Your task to perform on an android device: Open the Play Movies app and select the watchlist tab. Image 0: 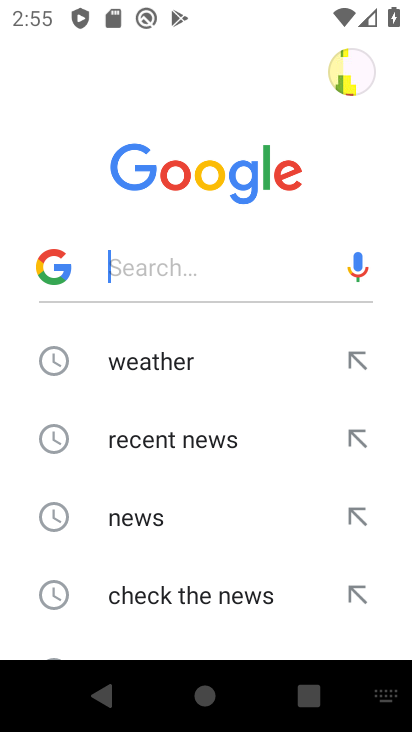
Step 0: press back button
Your task to perform on an android device: Open the Play Movies app and select the watchlist tab. Image 1: 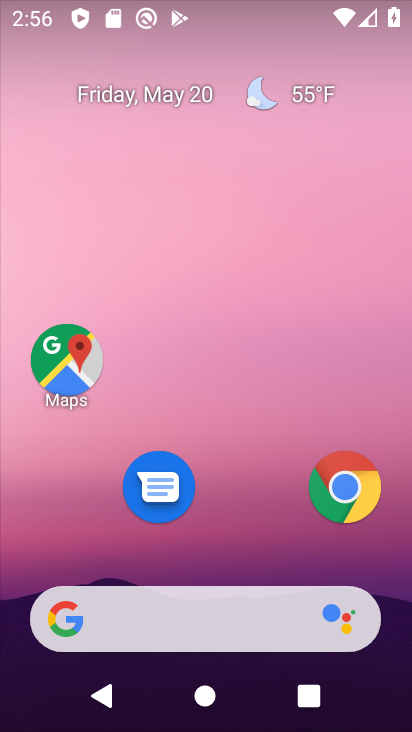
Step 1: drag from (210, 723) to (158, 69)
Your task to perform on an android device: Open the Play Movies app and select the watchlist tab. Image 2: 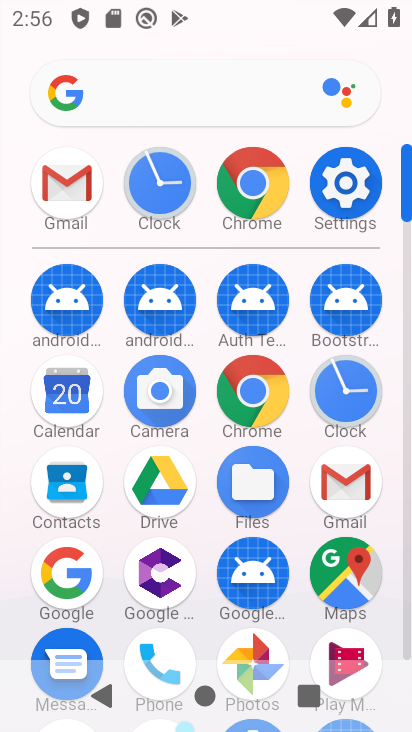
Step 2: drag from (303, 626) to (275, 179)
Your task to perform on an android device: Open the Play Movies app and select the watchlist tab. Image 3: 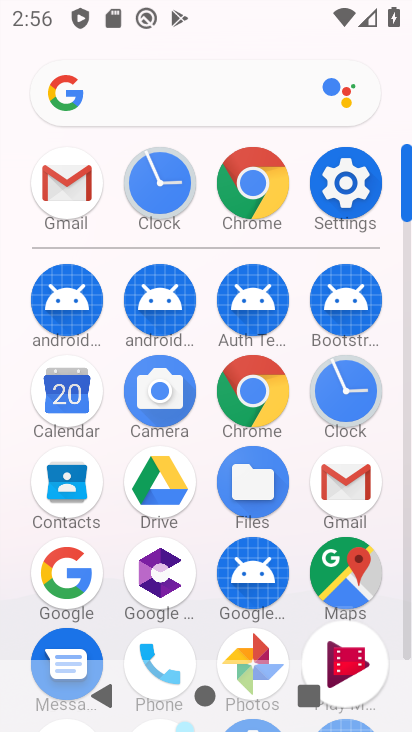
Step 3: drag from (259, 454) to (251, 156)
Your task to perform on an android device: Open the Play Movies app and select the watchlist tab. Image 4: 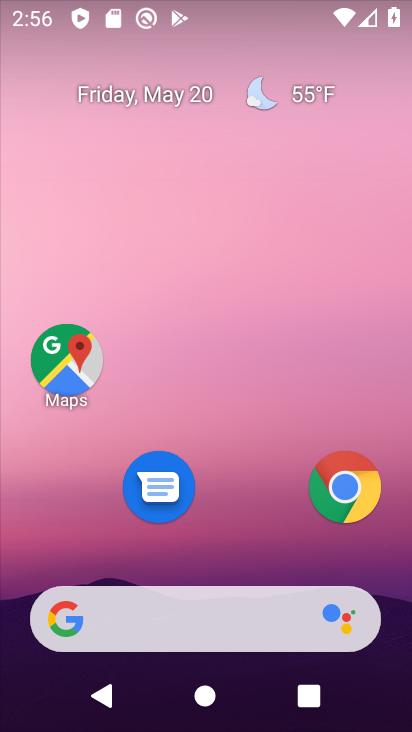
Step 4: drag from (250, 677) to (110, 91)
Your task to perform on an android device: Open the Play Movies app and select the watchlist tab. Image 5: 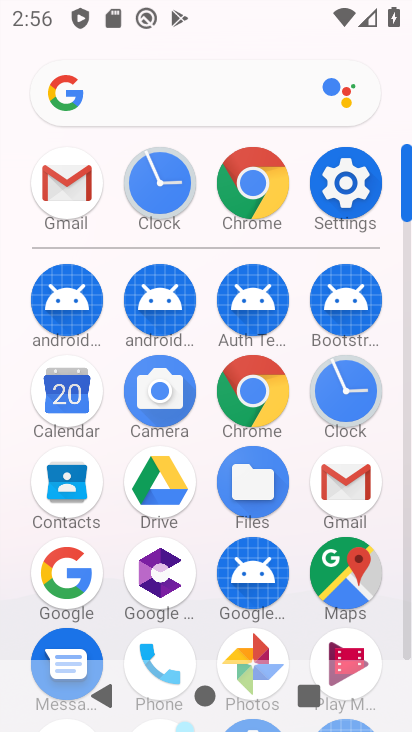
Step 5: drag from (244, 687) to (138, 161)
Your task to perform on an android device: Open the Play Movies app and select the watchlist tab. Image 6: 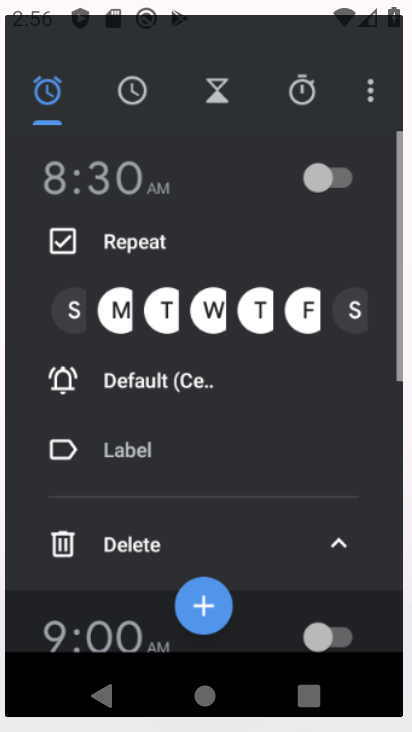
Step 6: drag from (310, 454) to (262, 149)
Your task to perform on an android device: Open the Play Movies app and select the watchlist tab. Image 7: 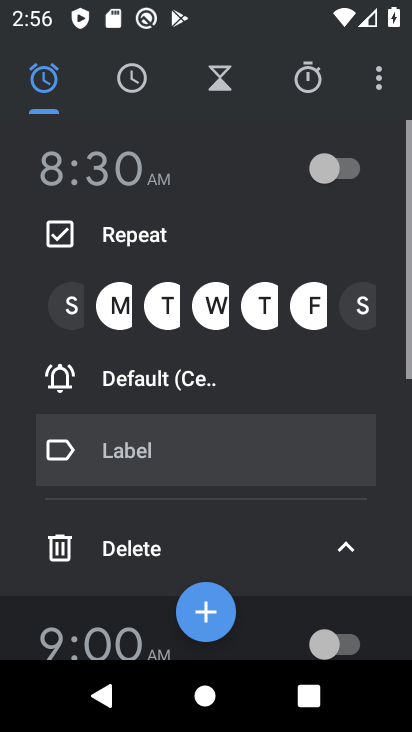
Step 7: drag from (306, 504) to (261, 188)
Your task to perform on an android device: Open the Play Movies app and select the watchlist tab. Image 8: 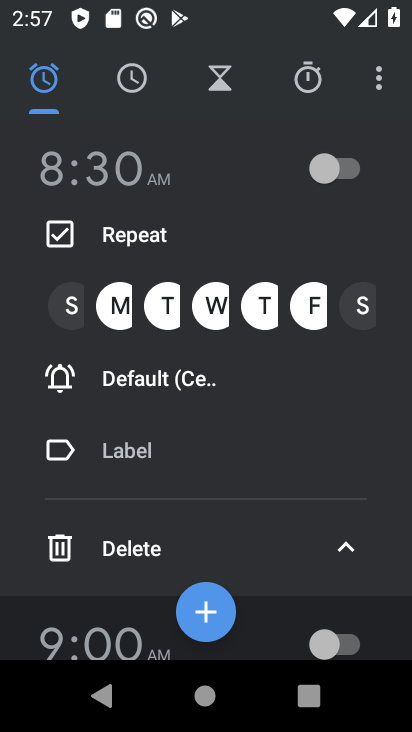
Step 8: press back button
Your task to perform on an android device: Open the Play Movies app and select the watchlist tab. Image 9: 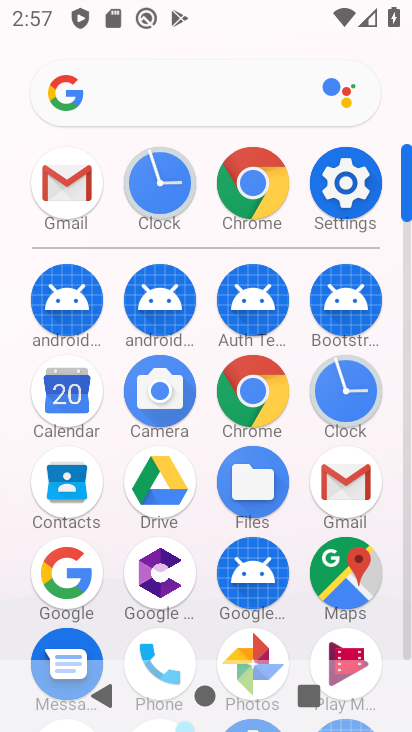
Step 9: drag from (279, 647) to (251, 258)
Your task to perform on an android device: Open the Play Movies app and select the watchlist tab. Image 10: 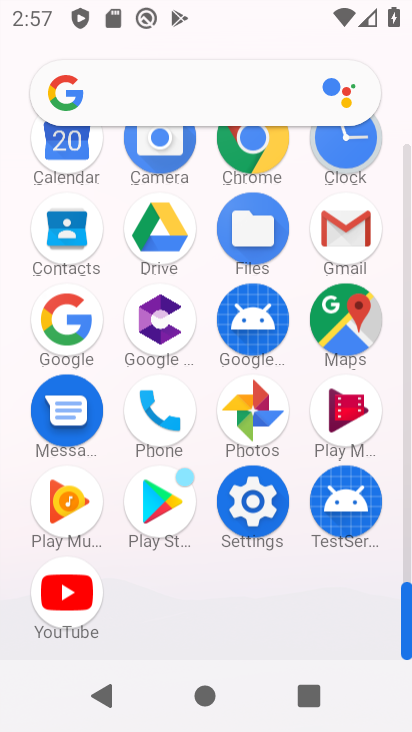
Step 10: drag from (263, 481) to (177, 147)
Your task to perform on an android device: Open the Play Movies app and select the watchlist tab. Image 11: 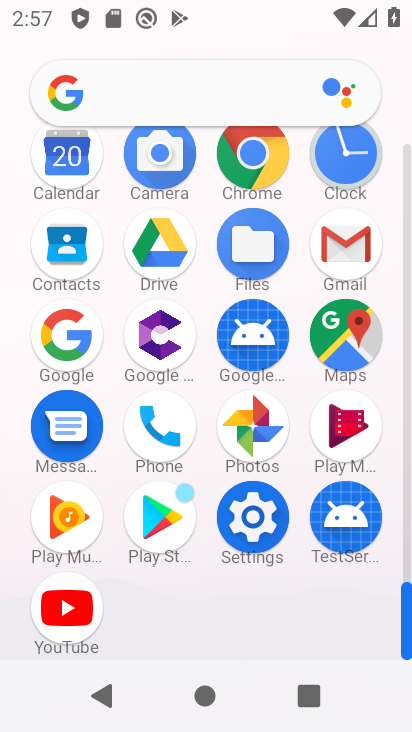
Step 11: click (60, 622)
Your task to perform on an android device: Open the Play Movies app and select the watchlist tab. Image 12: 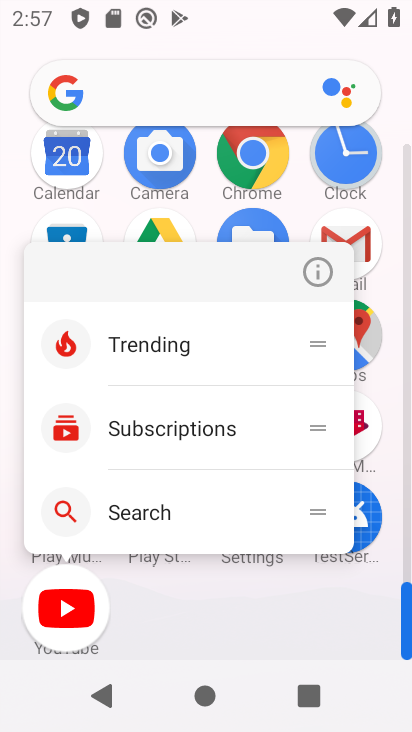
Step 12: click (59, 621)
Your task to perform on an android device: Open the Play Movies app and select the watchlist tab. Image 13: 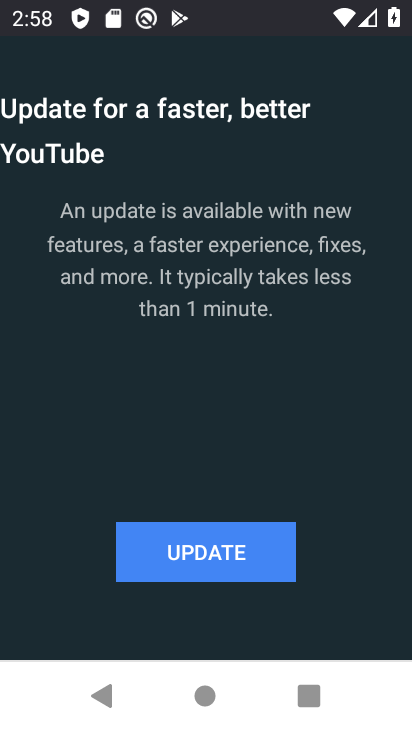
Step 13: press back button
Your task to perform on an android device: Open the Play Movies app and select the watchlist tab. Image 14: 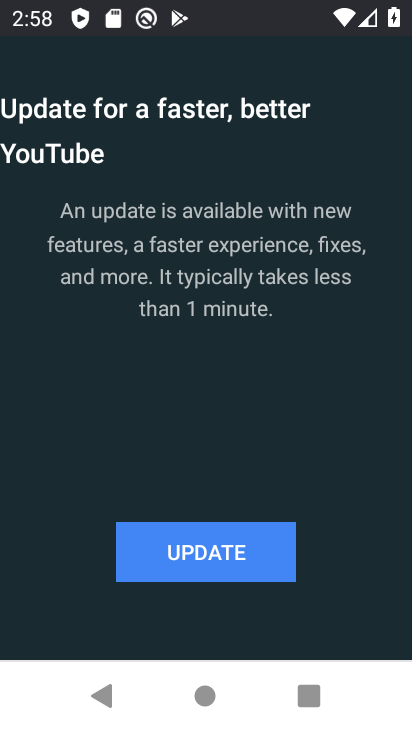
Step 14: press back button
Your task to perform on an android device: Open the Play Movies app and select the watchlist tab. Image 15: 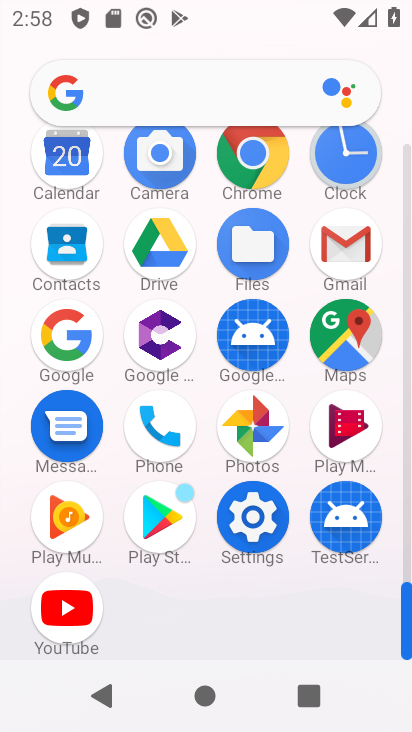
Step 15: press back button
Your task to perform on an android device: Open the Play Movies app and select the watchlist tab. Image 16: 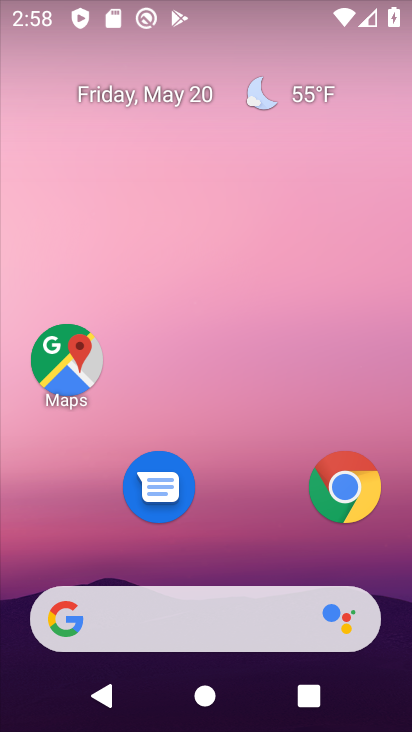
Step 16: drag from (263, 707) to (132, 231)
Your task to perform on an android device: Open the Play Movies app and select the watchlist tab. Image 17: 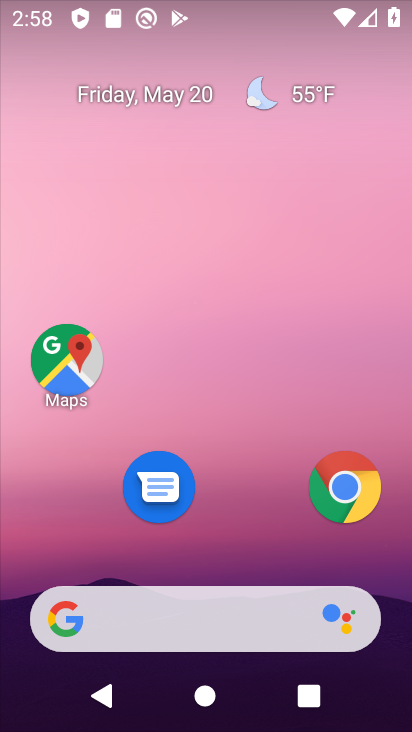
Step 17: drag from (233, 650) to (64, 110)
Your task to perform on an android device: Open the Play Movies app and select the watchlist tab. Image 18: 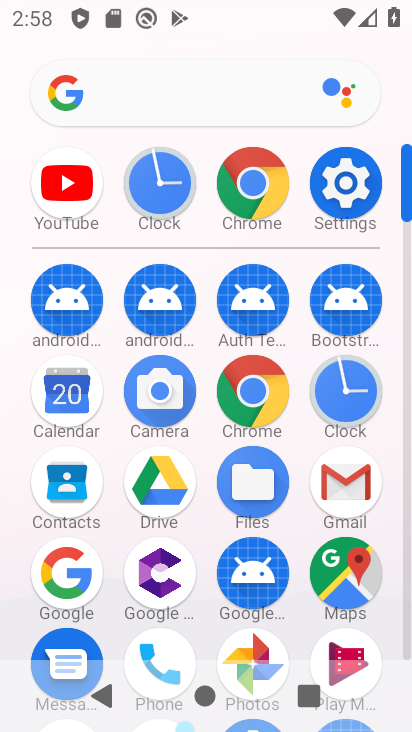
Step 18: drag from (234, 584) to (62, 105)
Your task to perform on an android device: Open the Play Movies app and select the watchlist tab. Image 19: 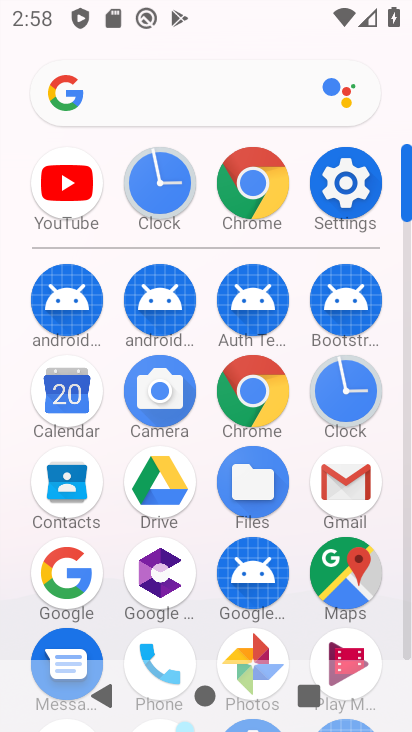
Step 19: click (73, 163)
Your task to perform on an android device: Open the Play Movies app and select the watchlist tab. Image 20: 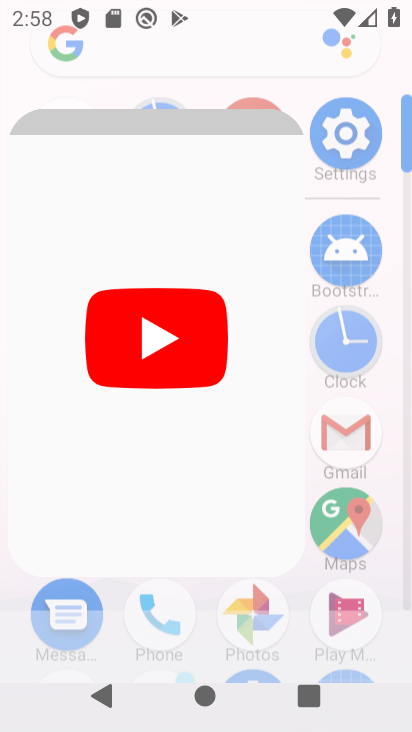
Step 20: click (75, 174)
Your task to perform on an android device: Open the Play Movies app and select the watchlist tab. Image 21: 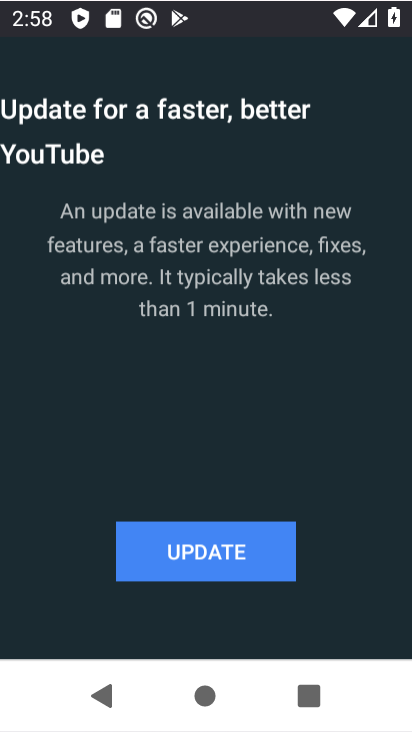
Step 21: click (75, 174)
Your task to perform on an android device: Open the Play Movies app and select the watchlist tab. Image 22: 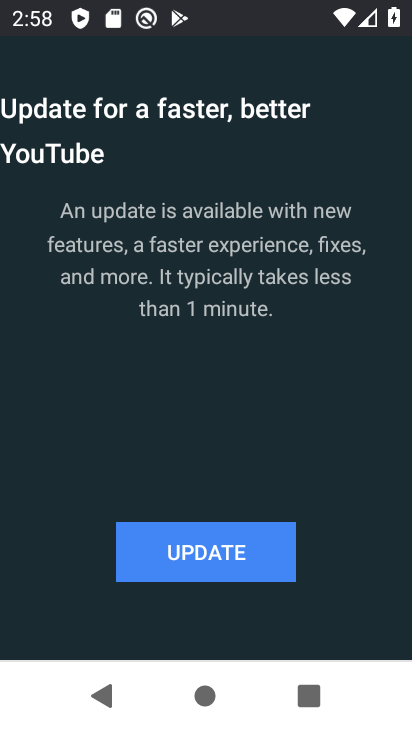
Step 22: click (75, 174)
Your task to perform on an android device: Open the Play Movies app and select the watchlist tab. Image 23: 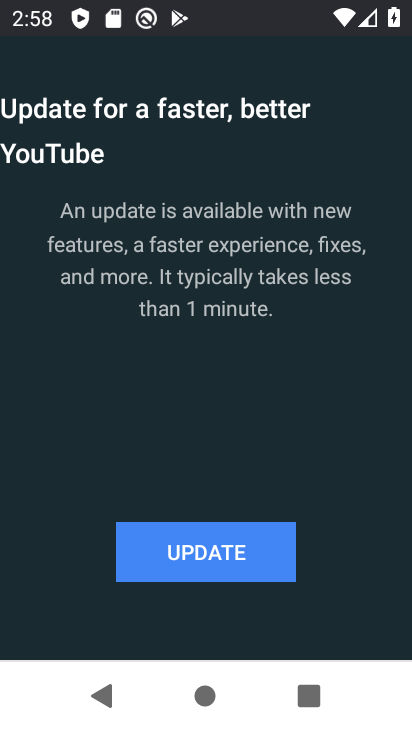
Step 23: click (75, 174)
Your task to perform on an android device: Open the Play Movies app and select the watchlist tab. Image 24: 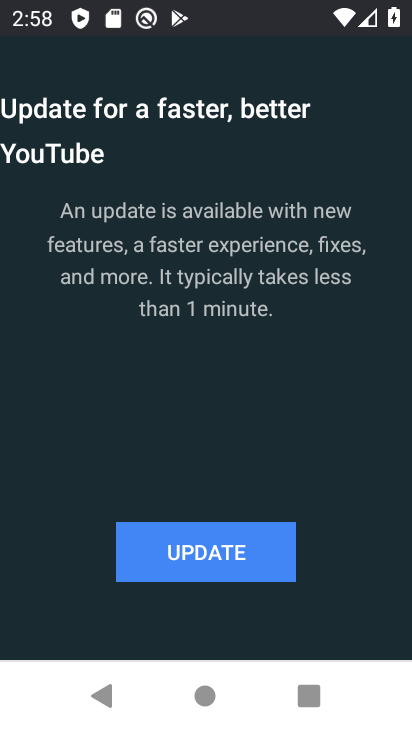
Step 24: click (206, 552)
Your task to perform on an android device: Open the Play Movies app and select the watchlist tab. Image 25: 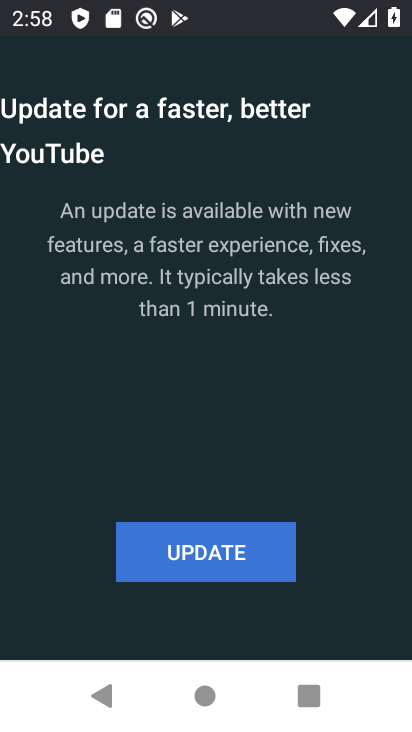
Step 25: click (208, 549)
Your task to perform on an android device: Open the Play Movies app and select the watchlist tab. Image 26: 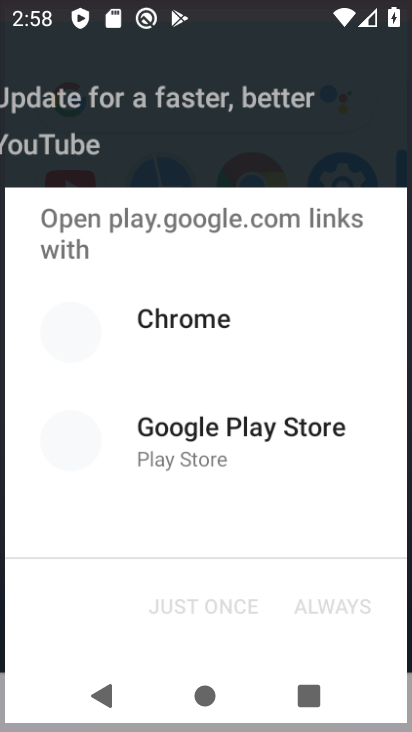
Step 26: click (226, 537)
Your task to perform on an android device: Open the Play Movies app and select the watchlist tab. Image 27: 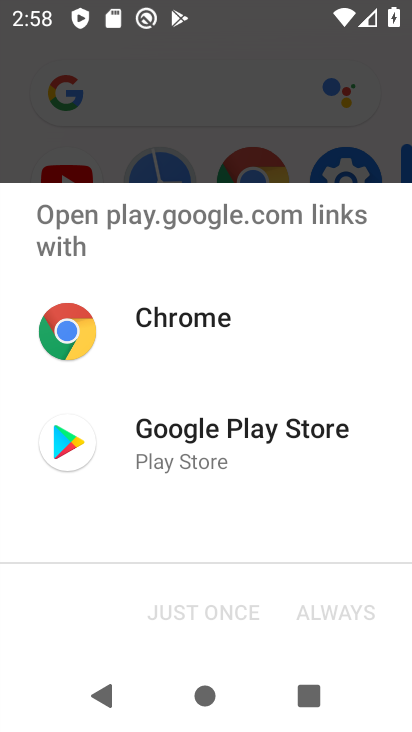
Step 27: click (194, 457)
Your task to perform on an android device: Open the Play Movies app and select the watchlist tab. Image 28: 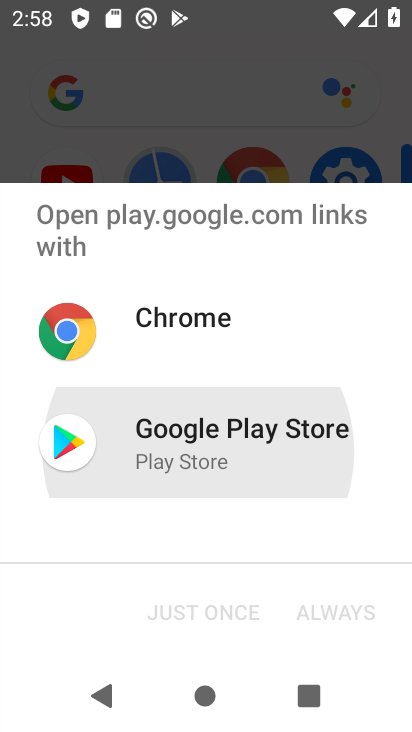
Step 28: click (194, 457)
Your task to perform on an android device: Open the Play Movies app and select the watchlist tab. Image 29: 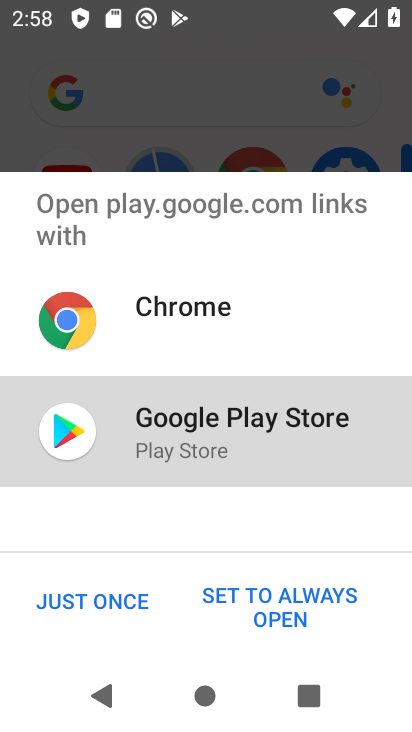
Step 29: click (194, 457)
Your task to perform on an android device: Open the Play Movies app and select the watchlist tab. Image 30: 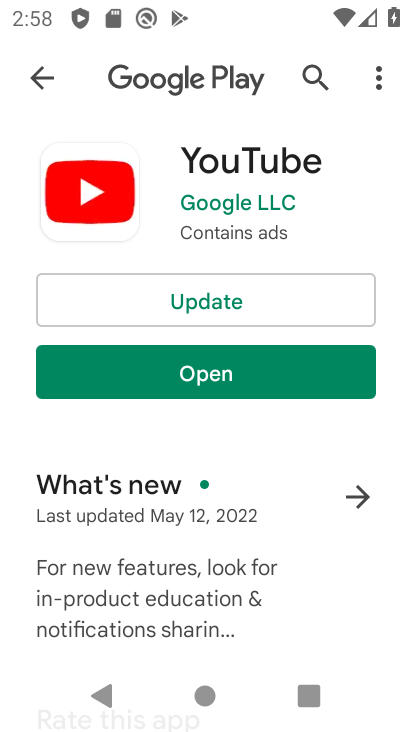
Step 30: click (209, 314)
Your task to perform on an android device: Open the Play Movies app and select the watchlist tab. Image 31: 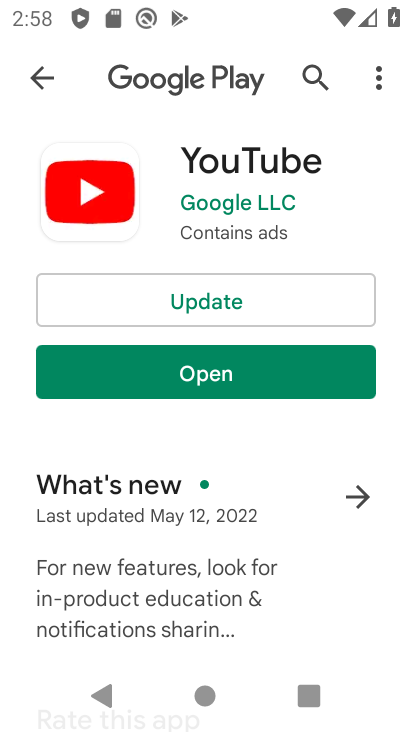
Step 31: click (209, 314)
Your task to perform on an android device: Open the Play Movies app and select the watchlist tab. Image 32: 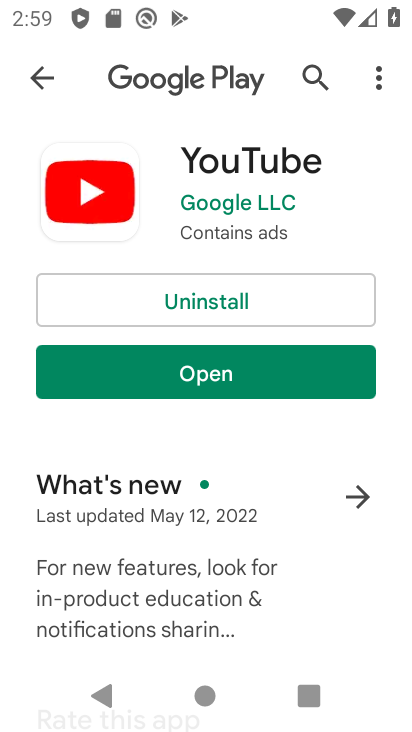
Step 32: click (211, 369)
Your task to perform on an android device: Open the Play Movies app and select the watchlist tab. Image 33: 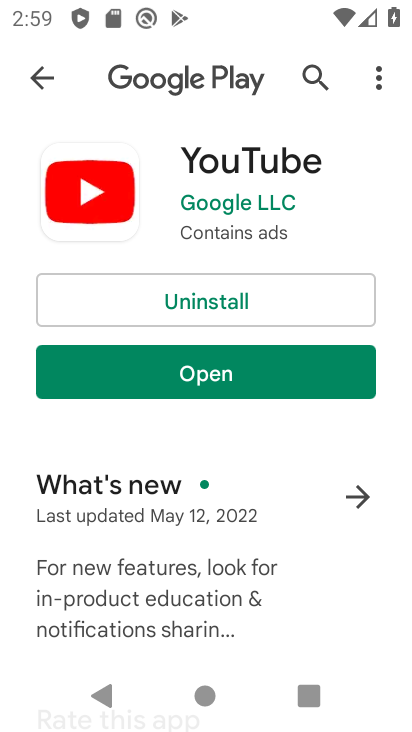
Step 33: click (211, 369)
Your task to perform on an android device: Open the Play Movies app and select the watchlist tab. Image 34: 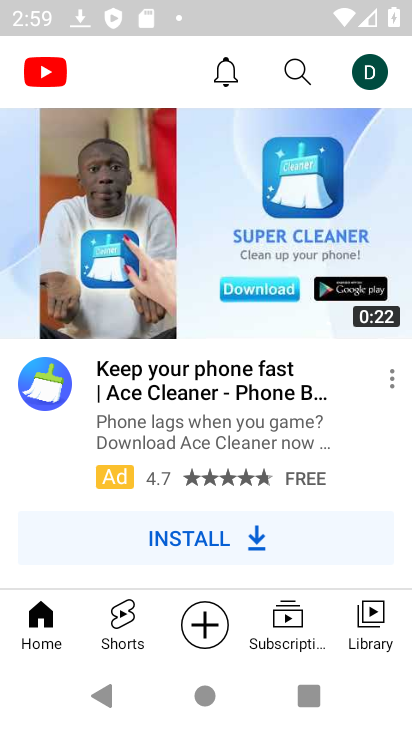
Step 34: drag from (190, 460) to (146, 65)
Your task to perform on an android device: Open the Play Movies app and select the watchlist tab. Image 35: 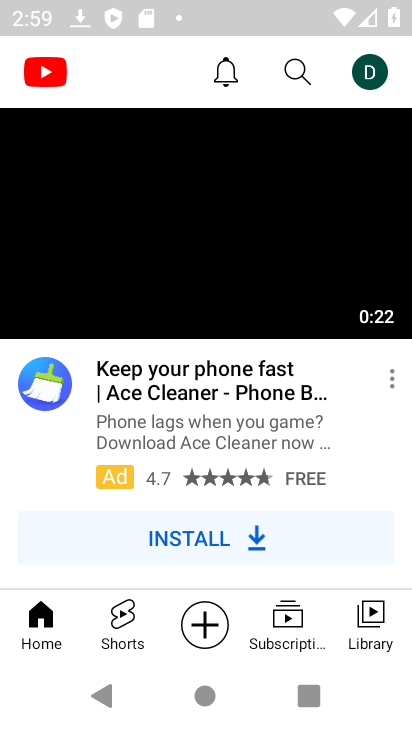
Step 35: drag from (241, 421) to (197, 140)
Your task to perform on an android device: Open the Play Movies app and select the watchlist tab. Image 36: 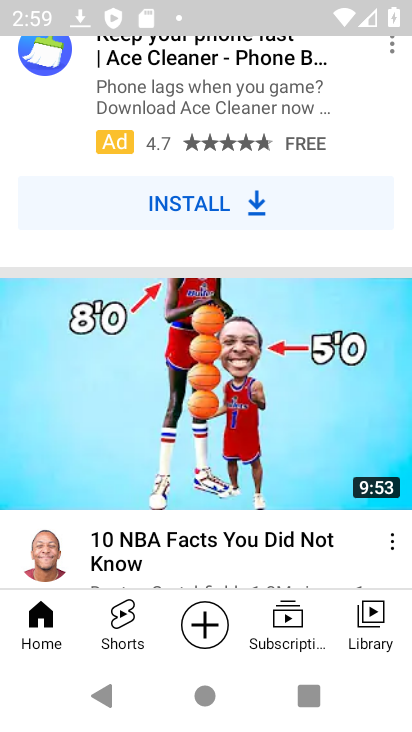
Step 36: click (173, 194)
Your task to perform on an android device: Open the Play Movies app and select the watchlist tab. Image 37: 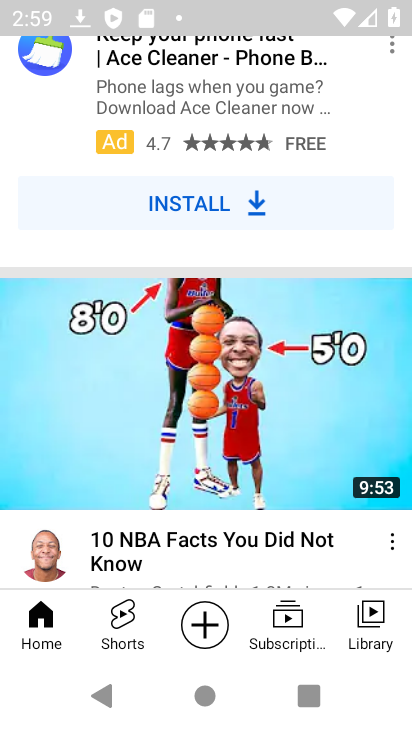
Step 37: task complete